Your task to perform on an android device: toggle pop-ups in chrome Image 0: 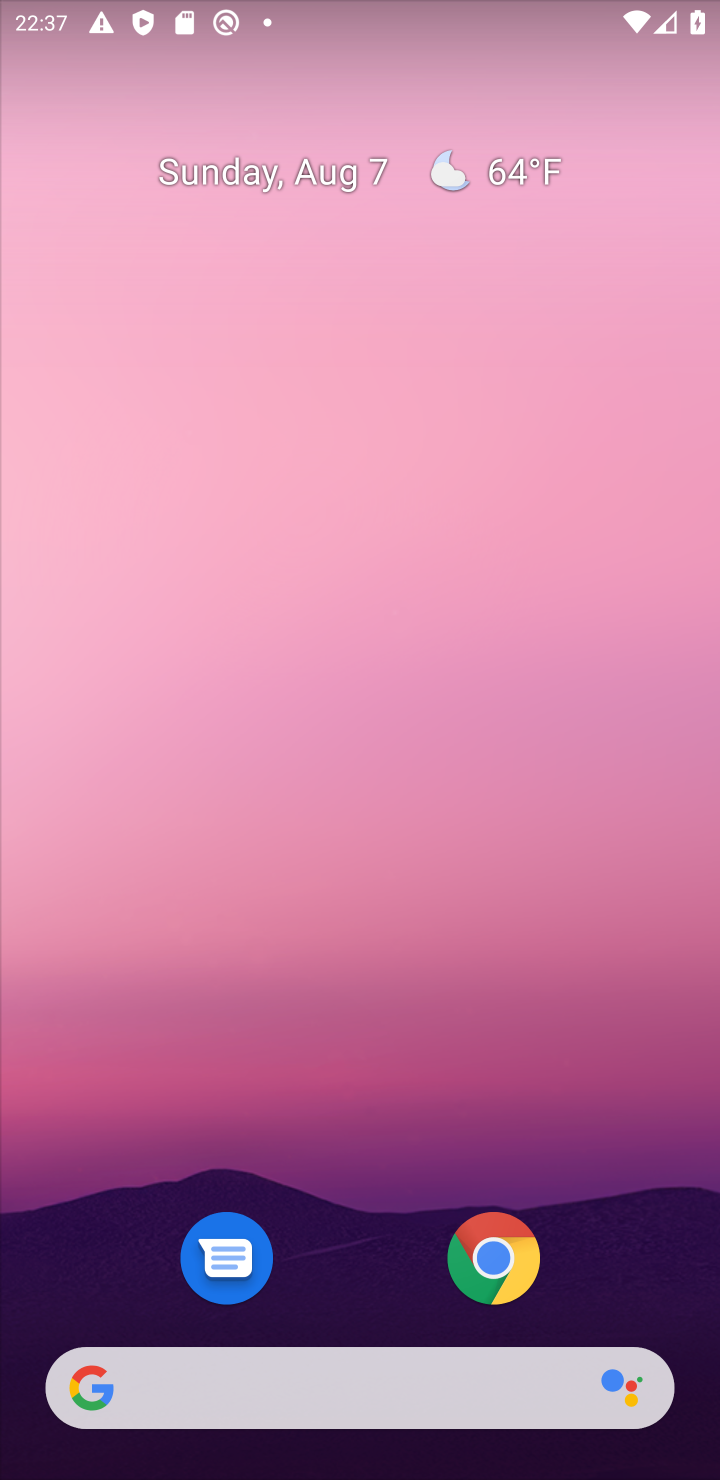
Step 0: drag from (406, 1234) to (508, 329)
Your task to perform on an android device: toggle pop-ups in chrome Image 1: 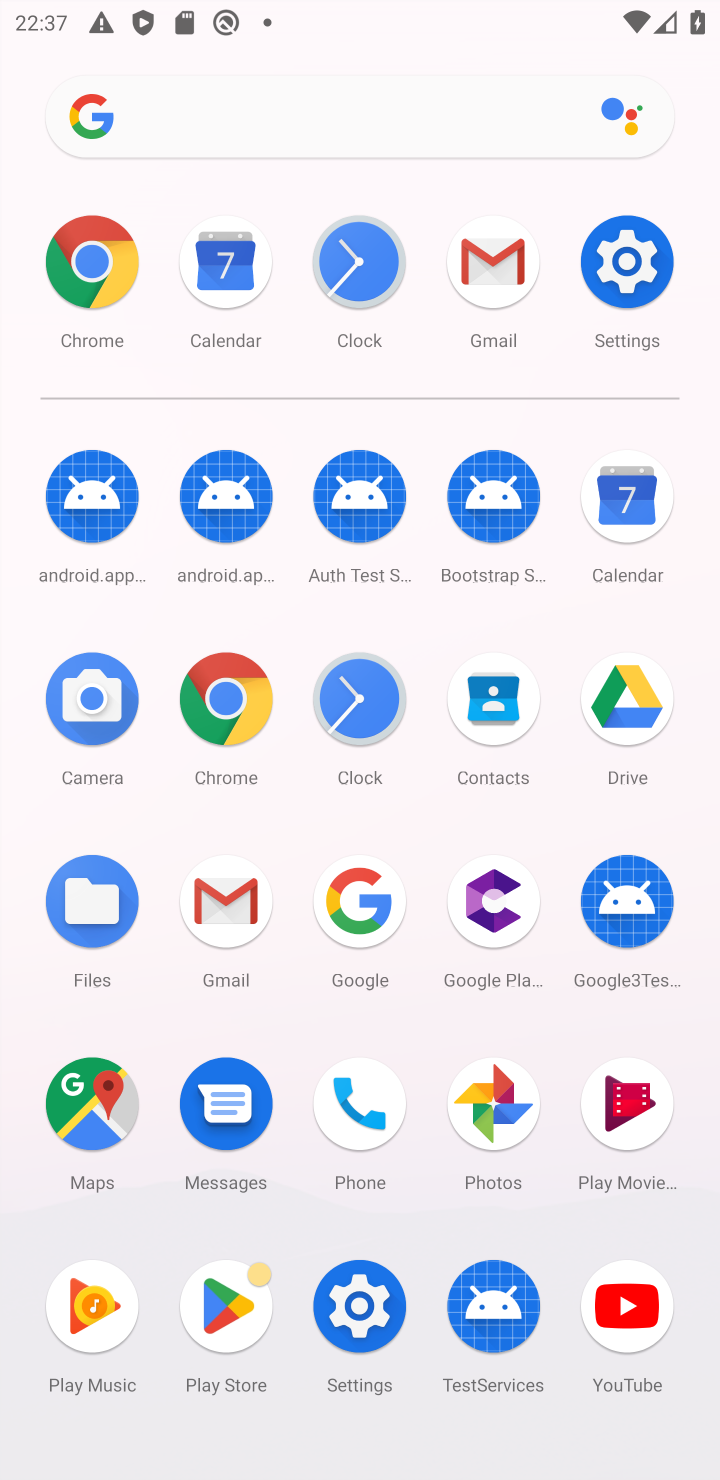
Step 1: click (48, 229)
Your task to perform on an android device: toggle pop-ups in chrome Image 2: 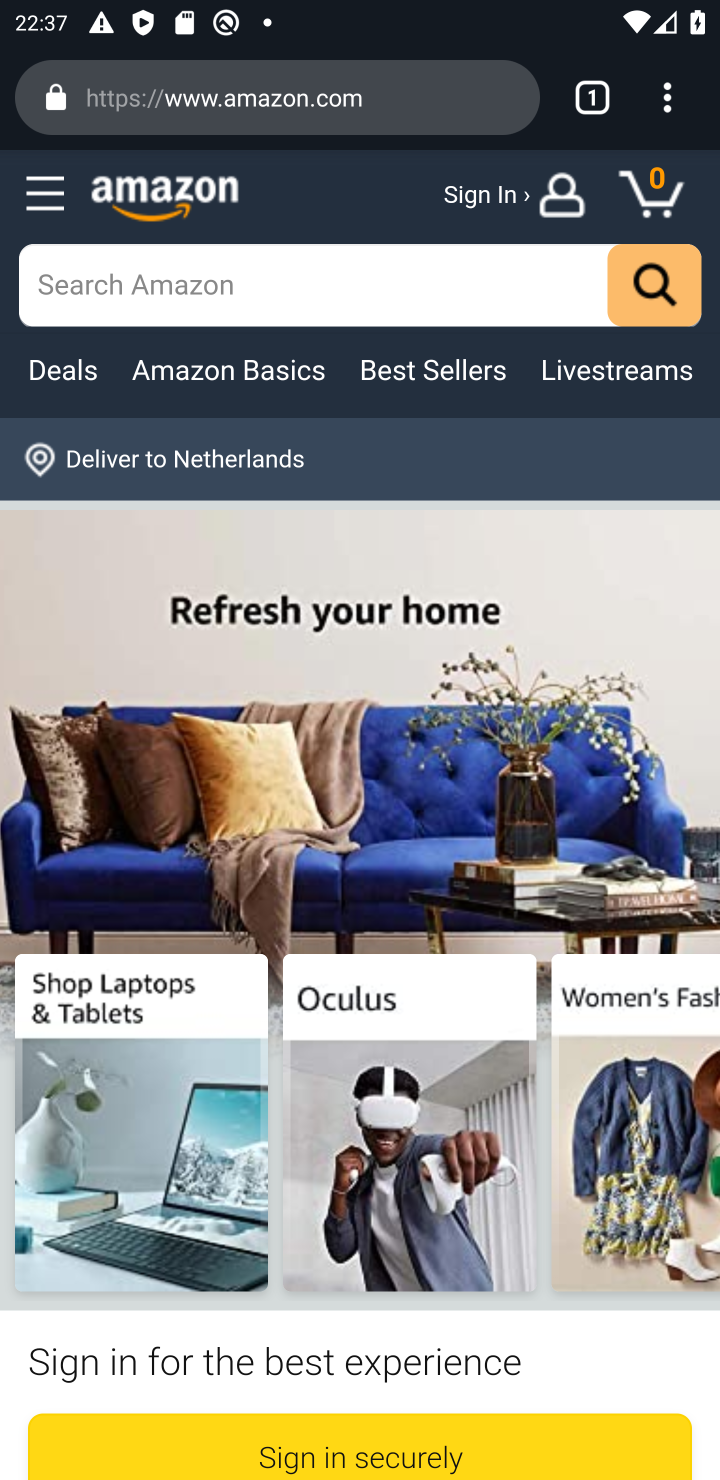
Step 2: drag from (676, 100) to (303, 1269)
Your task to perform on an android device: toggle pop-ups in chrome Image 3: 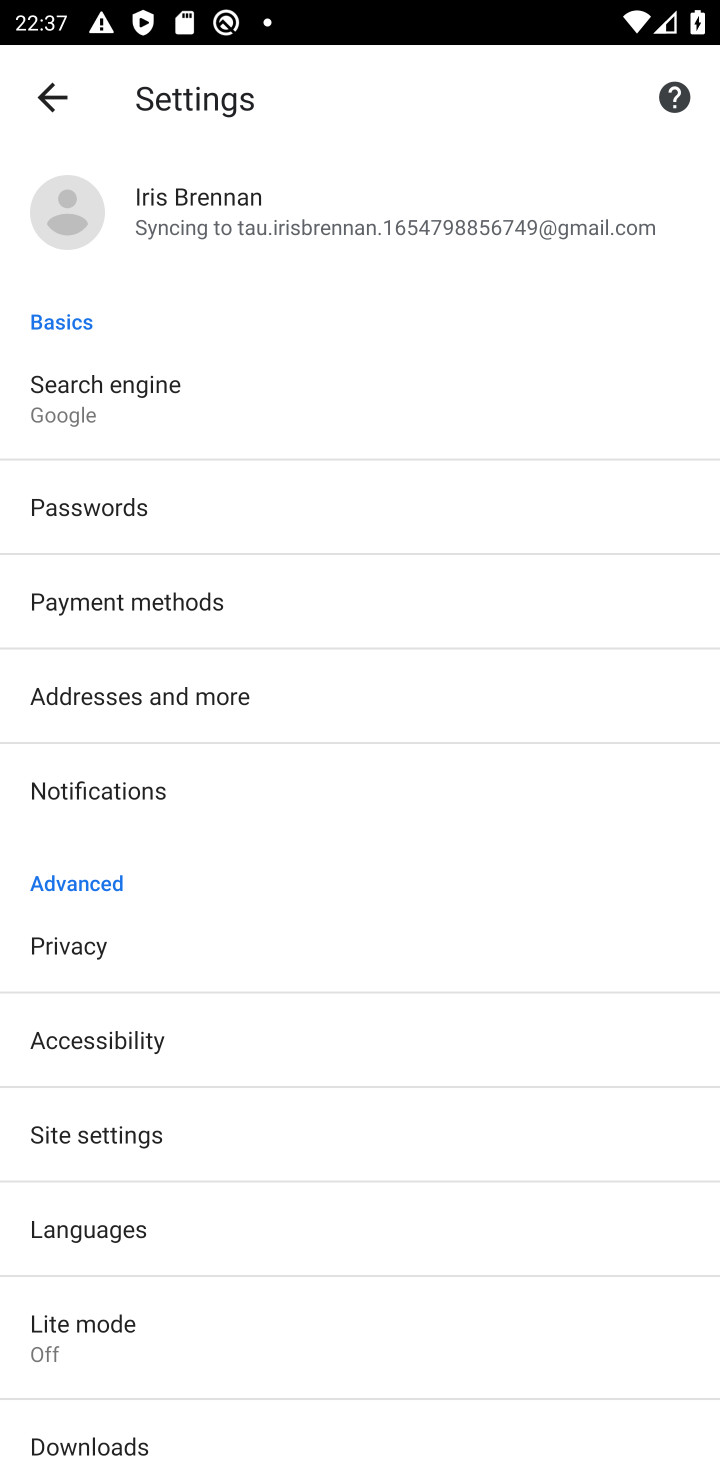
Step 3: click (208, 1137)
Your task to perform on an android device: toggle pop-ups in chrome Image 4: 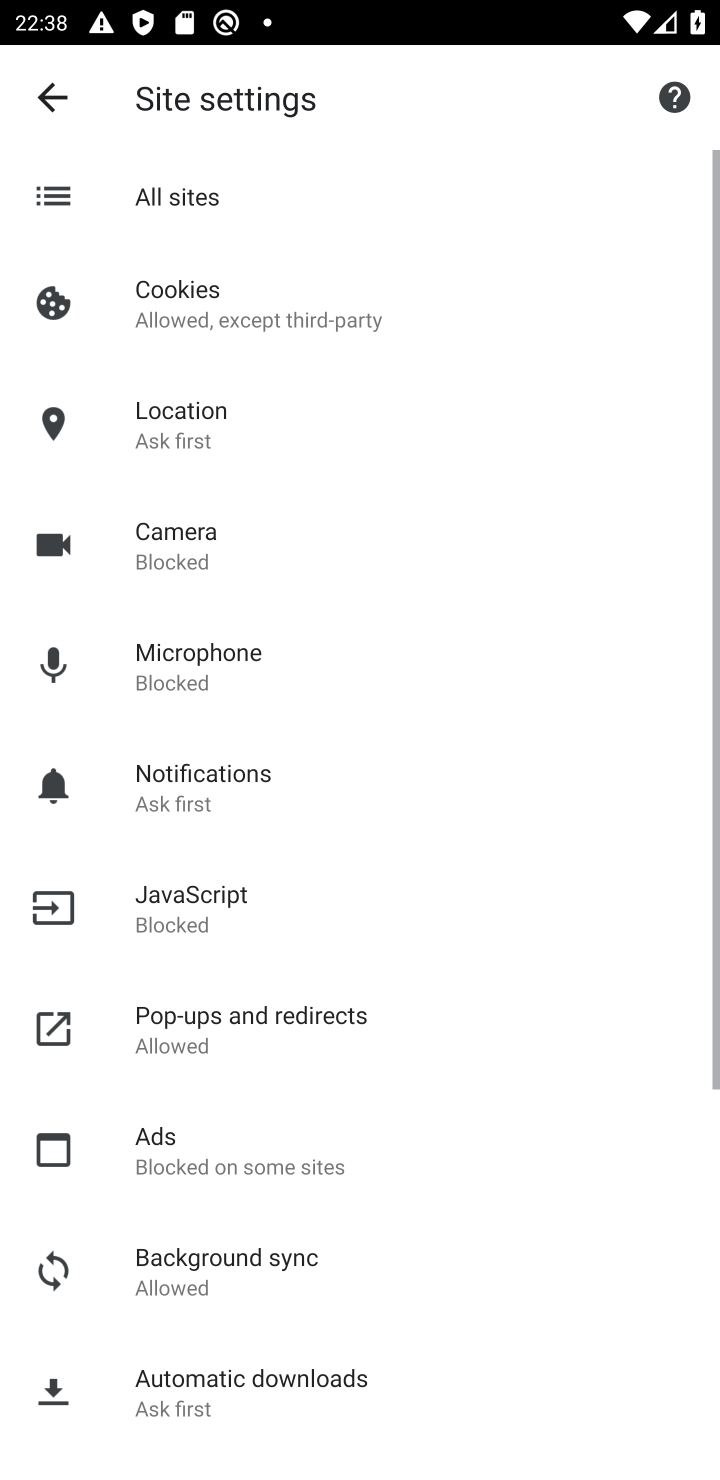
Step 4: click (242, 1017)
Your task to perform on an android device: toggle pop-ups in chrome Image 5: 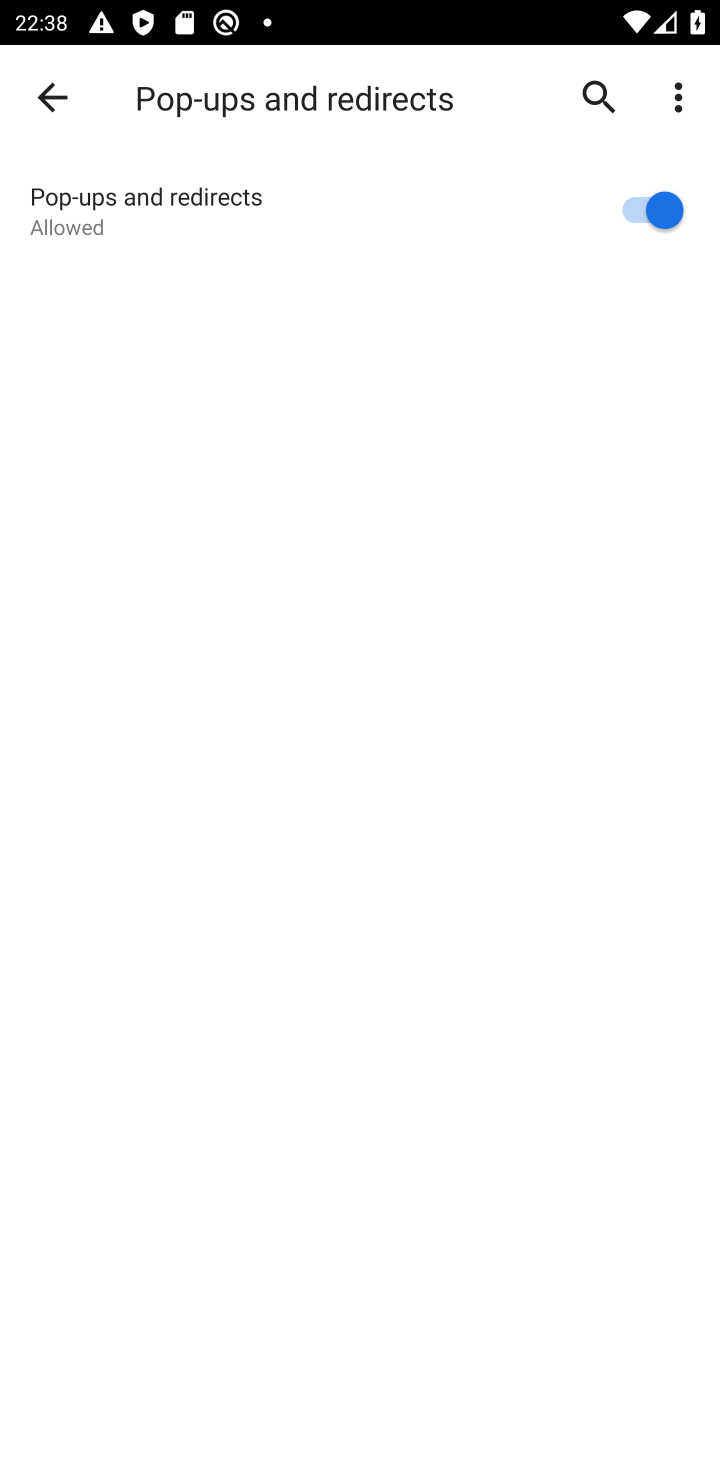
Step 5: click (547, 212)
Your task to perform on an android device: toggle pop-ups in chrome Image 6: 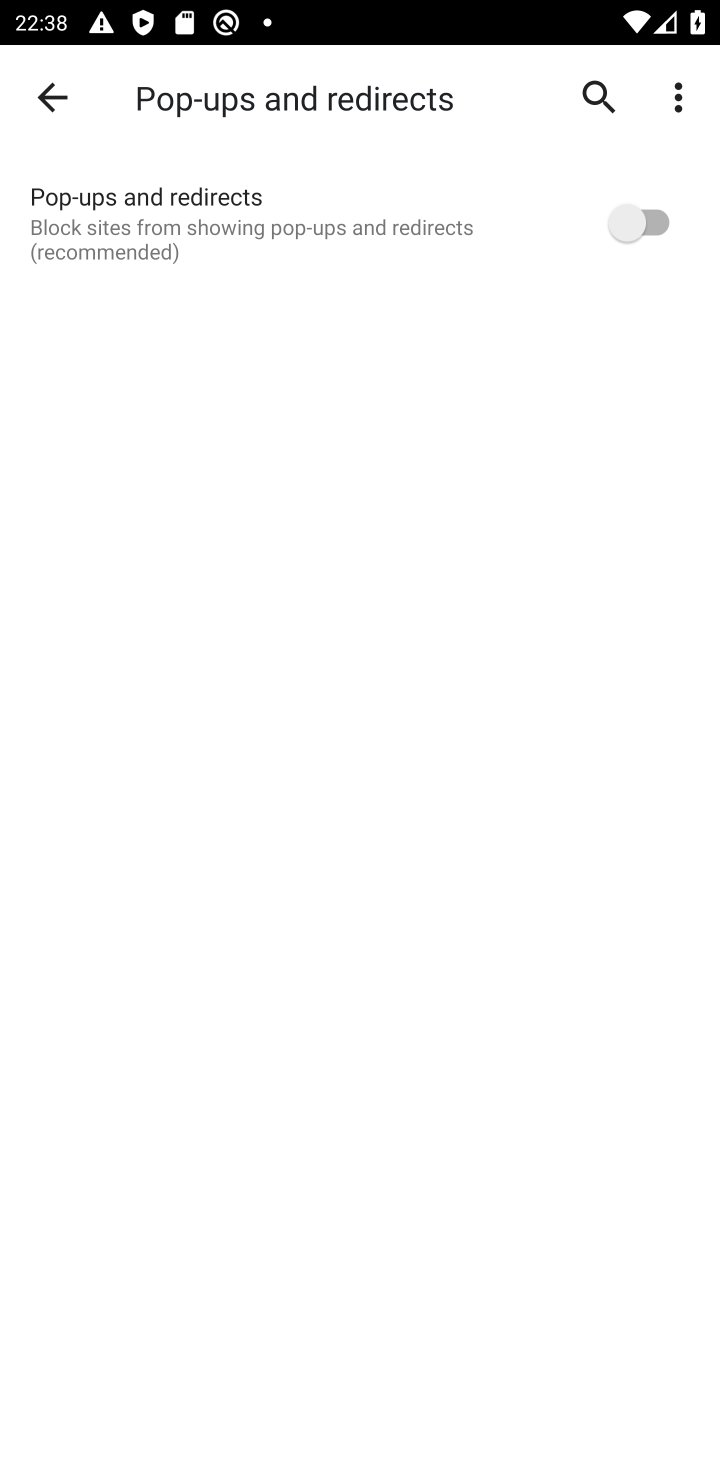
Step 6: task complete